Your task to perform on an android device: install app "Roku - Official Remote Control" Image 0: 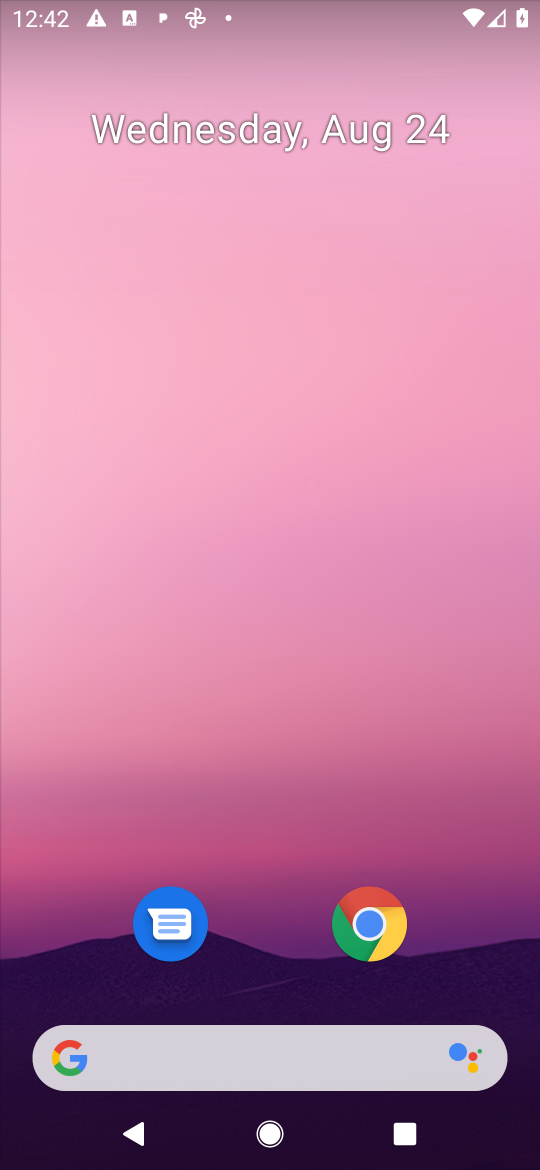
Step 0: press home button
Your task to perform on an android device: install app "Roku - Official Remote Control" Image 1: 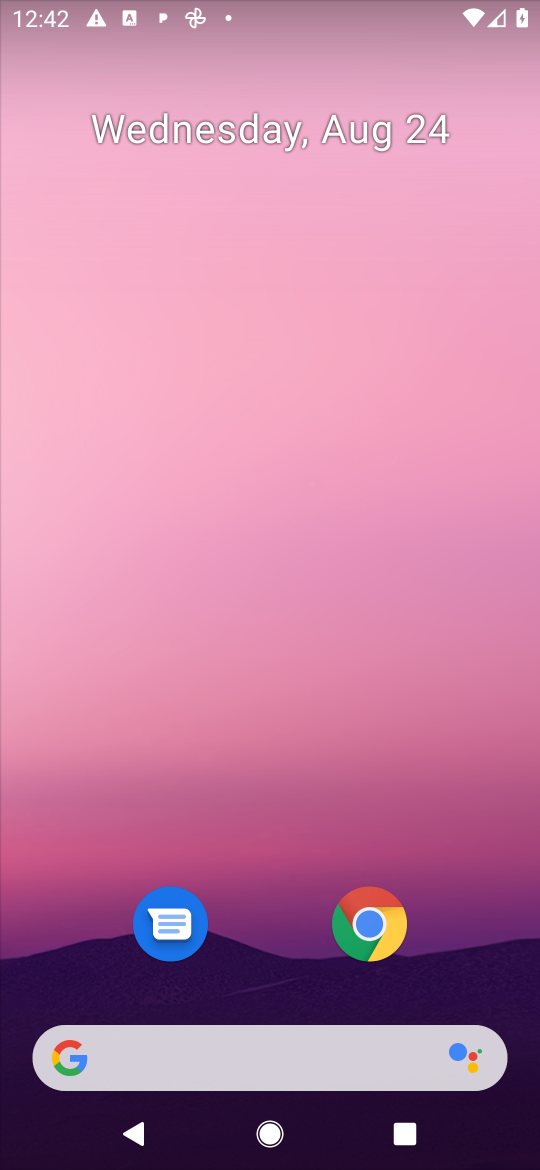
Step 1: drag from (482, 963) to (485, 235)
Your task to perform on an android device: install app "Roku - Official Remote Control" Image 2: 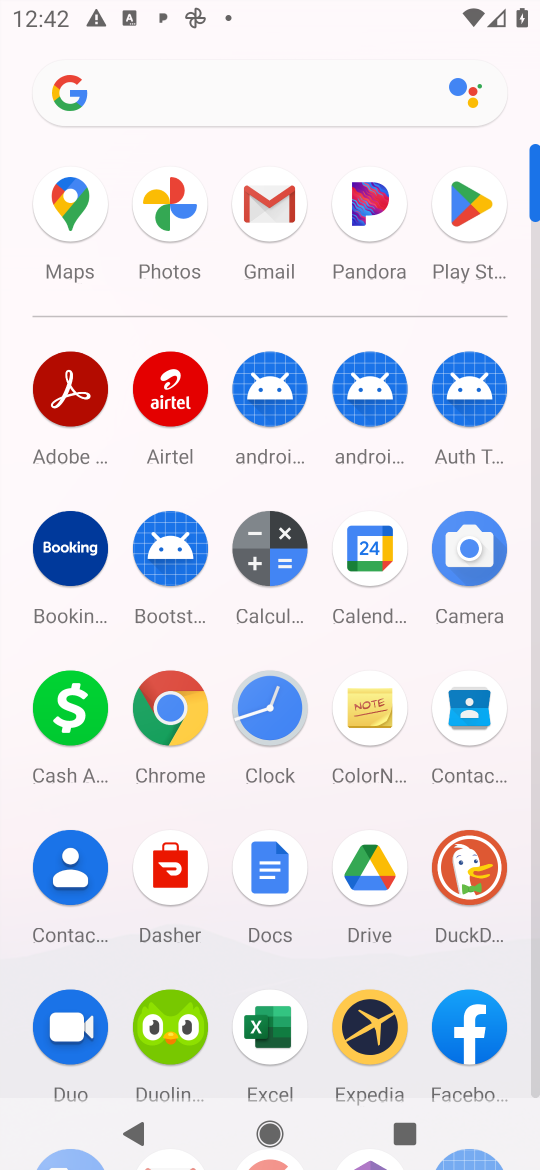
Step 2: click (482, 219)
Your task to perform on an android device: install app "Roku - Official Remote Control" Image 3: 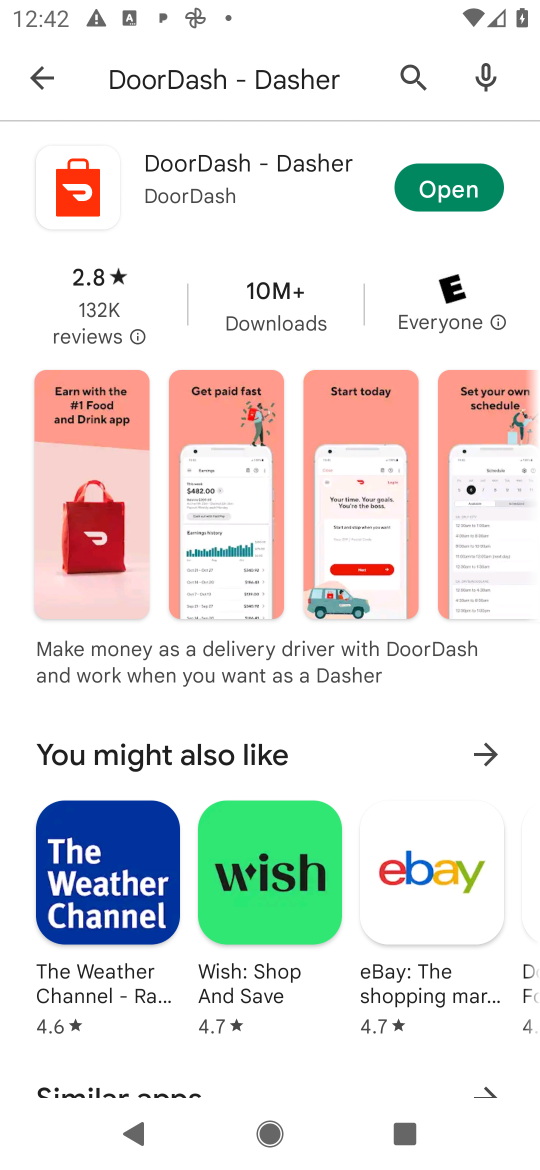
Step 3: press back button
Your task to perform on an android device: install app "Roku - Official Remote Control" Image 4: 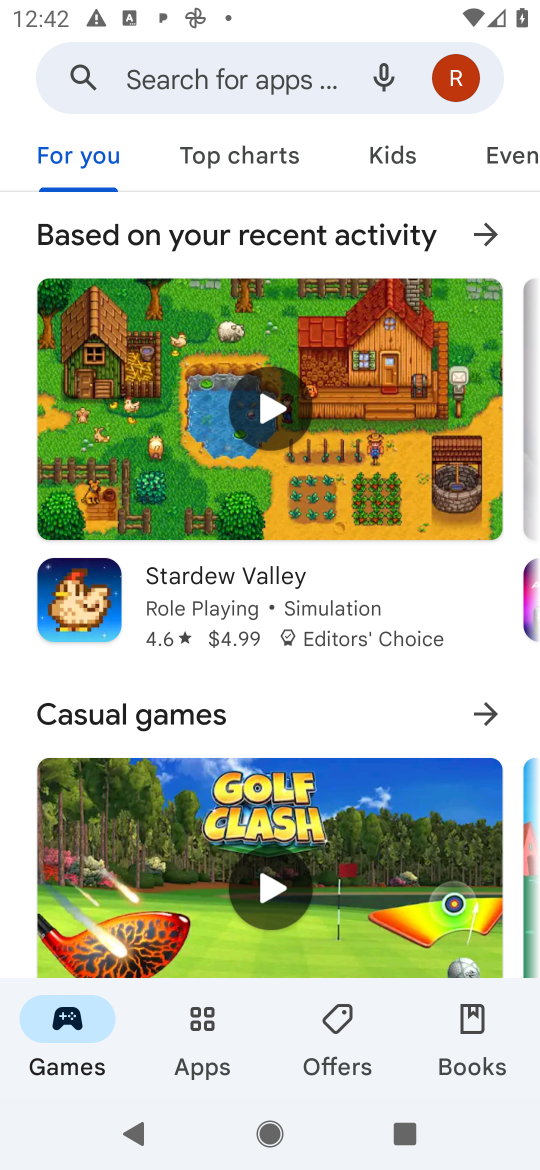
Step 4: click (226, 81)
Your task to perform on an android device: install app "Roku - Official Remote Control" Image 5: 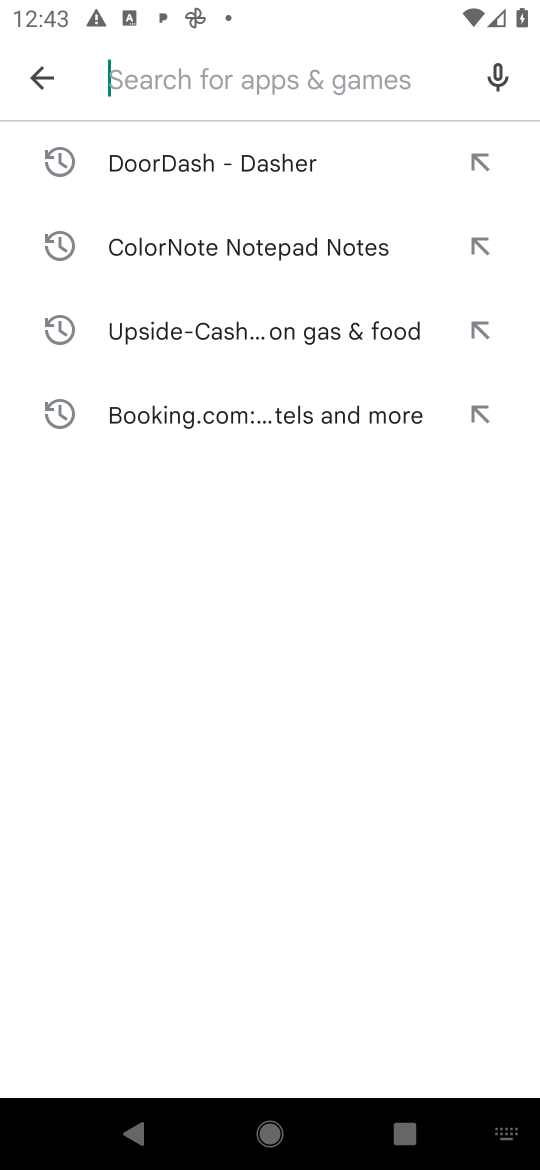
Step 5: type "Roku - Official Remote Control"
Your task to perform on an android device: install app "Roku - Official Remote Control" Image 6: 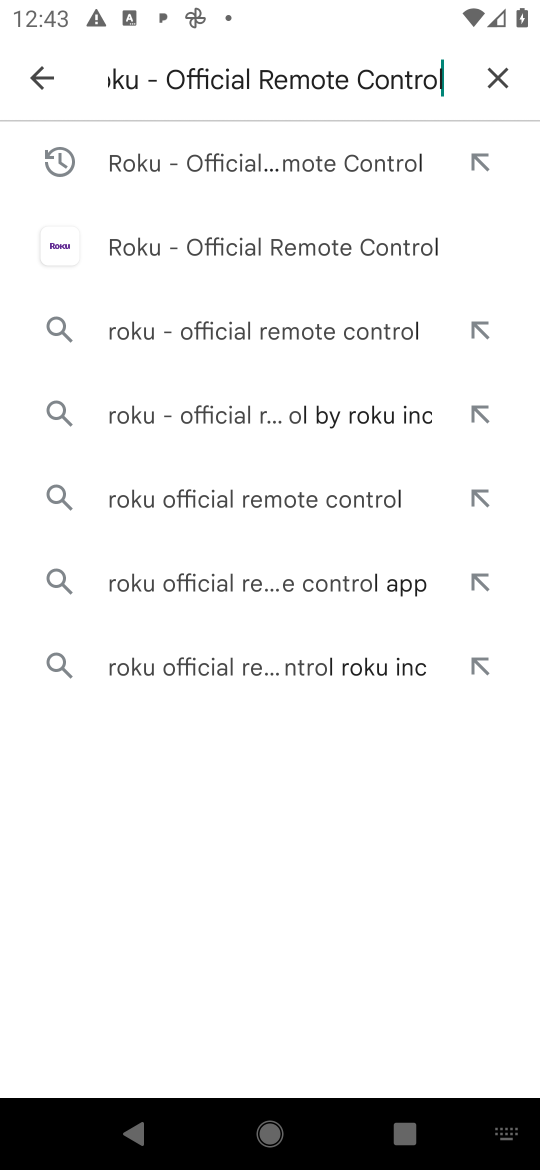
Step 6: press enter
Your task to perform on an android device: install app "Roku - Official Remote Control" Image 7: 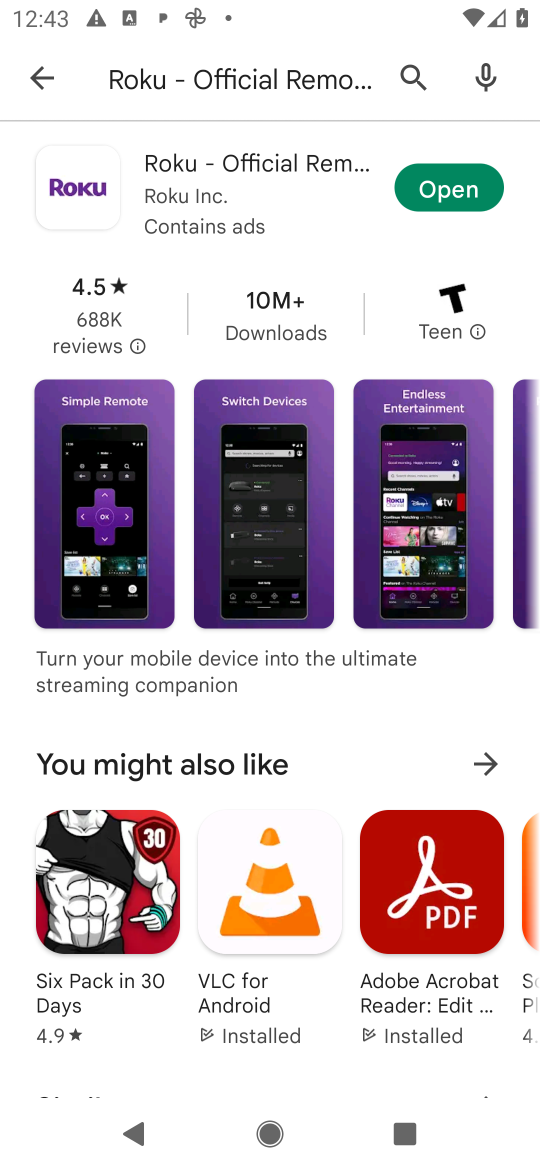
Step 7: task complete